Your task to perform on an android device: Open the web browser Image 0: 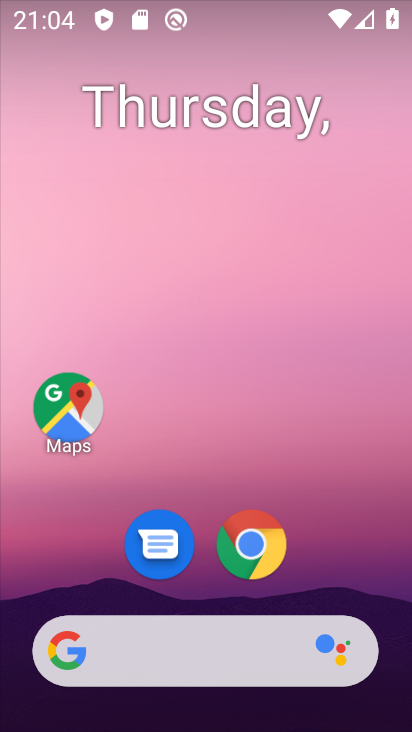
Step 0: click (253, 527)
Your task to perform on an android device: Open the web browser Image 1: 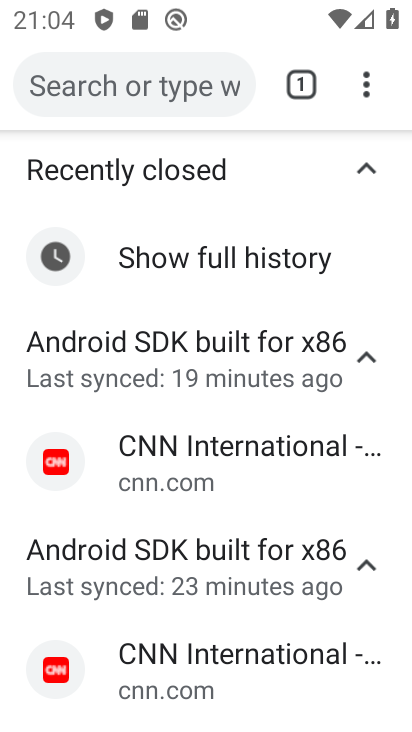
Step 1: task complete